Your task to perform on an android device: Open sound settings Image 0: 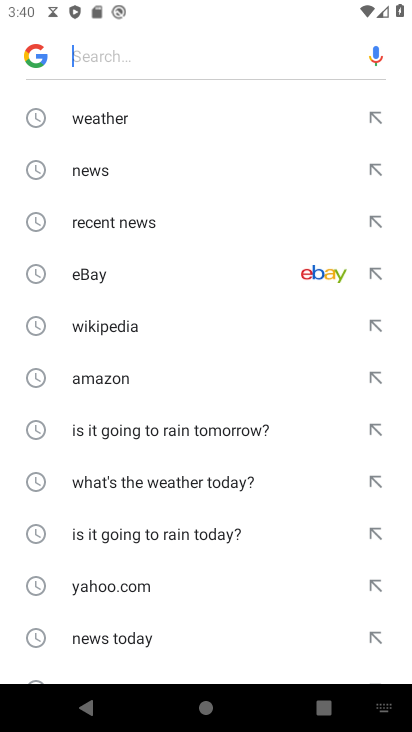
Step 0: press home button
Your task to perform on an android device: Open sound settings Image 1: 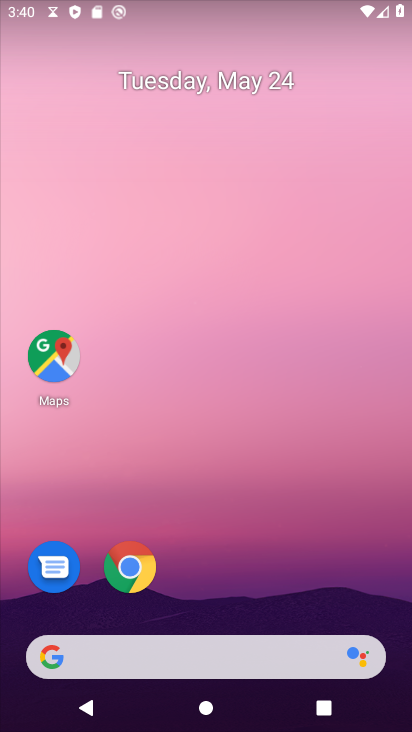
Step 1: drag from (219, 555) to (260, 164)
Your task to perform on an android device: Open sound settings Image 2: 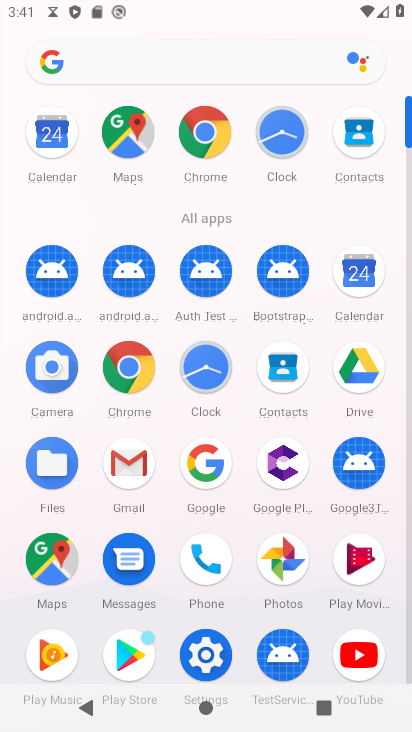
Step 2: click (219, 630)
Your task to perform on an android device: Open sound settings Image 3: 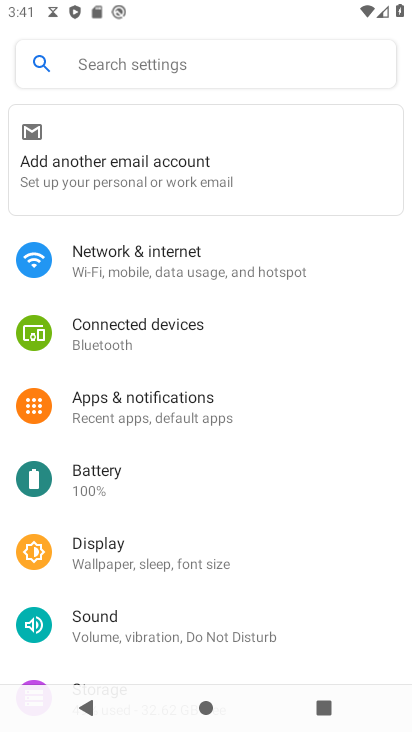
Step 3: drag from (122, 544) to (173, 274)
Your task to perform on an android device: Open sound settings Image 4: 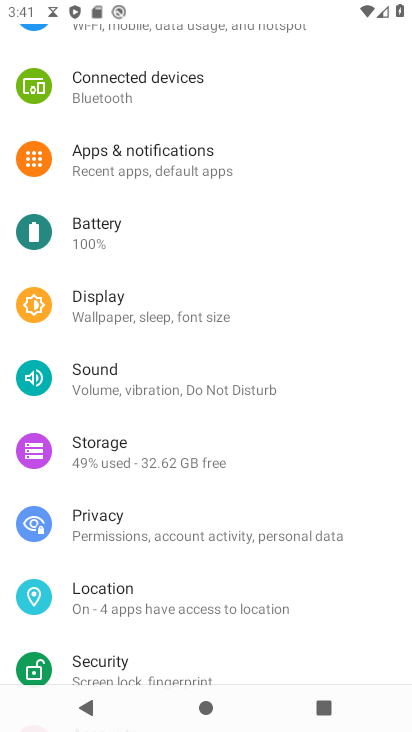
Step 4: click (119, 389)
Your task to perform on an android device: Open sound settings Image 5: 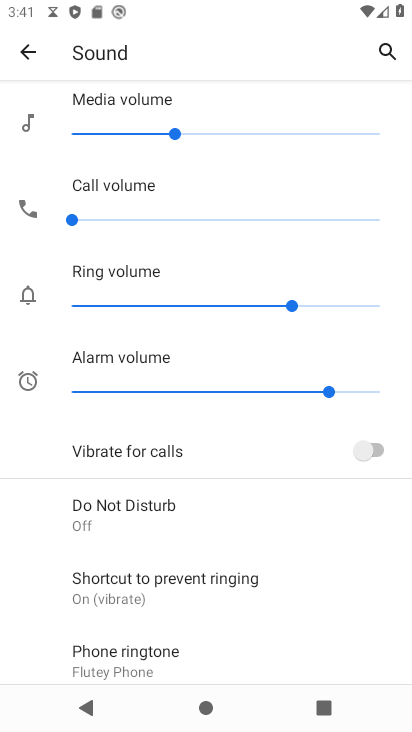
Step 5: task complete